Your task to perform on an android device: Open location settings Image 0: 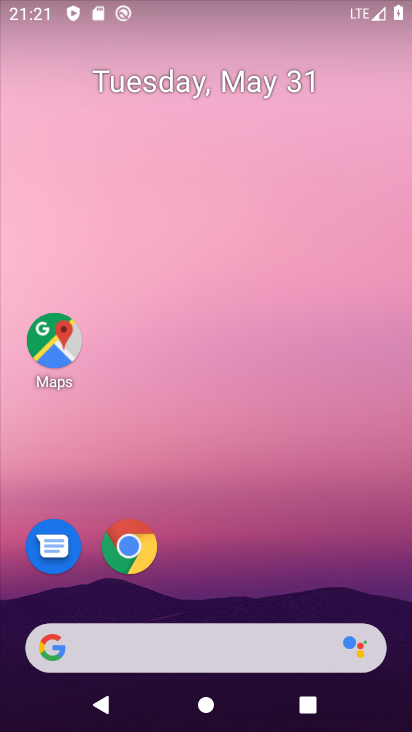
Step 0: drag from (400, 705) to (318, 165)
Your task to perform on an android device: Open location settings Image 1: 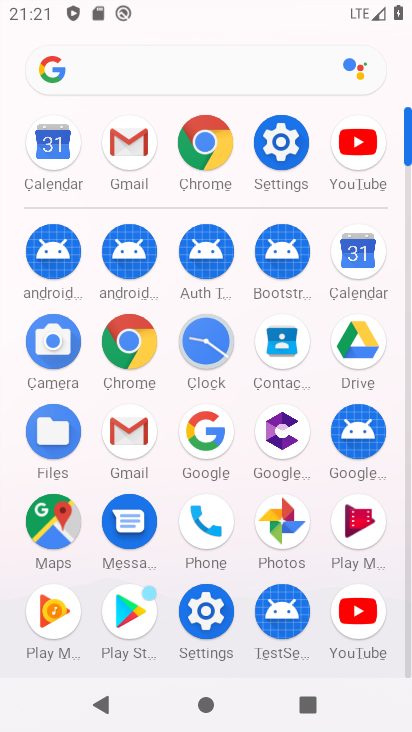
Step 1: click (206, 610)
Your task to perform on an android device: Open location settings Image 2: 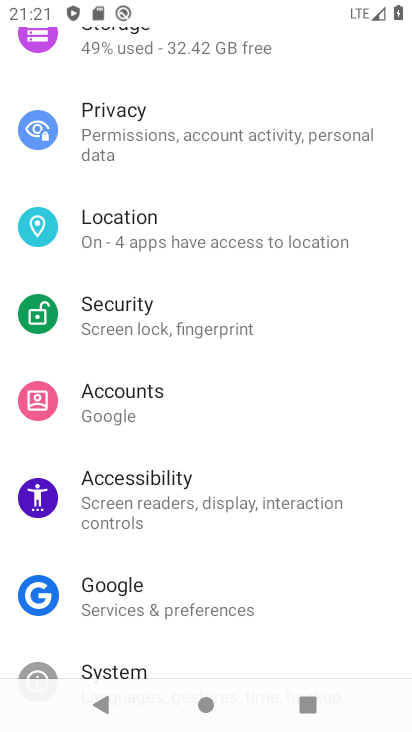
Step 2: click (119, 222)
Your task to perform on an android device: Open location settings Image 3: 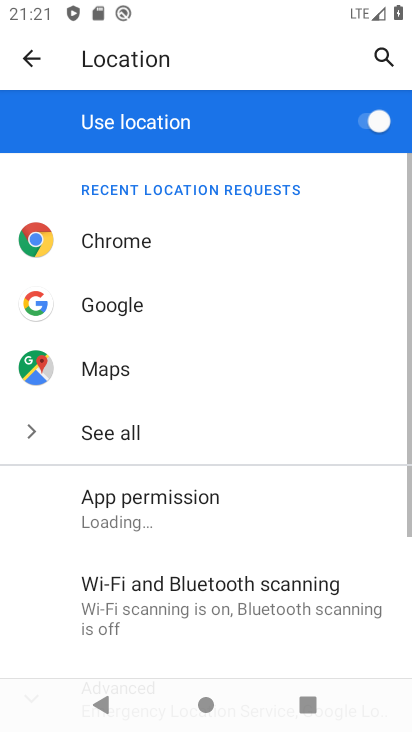
Step 3: drag from (328, 594) to (280, 172)
Your task to perform on an android device: Open location settings Image 4: 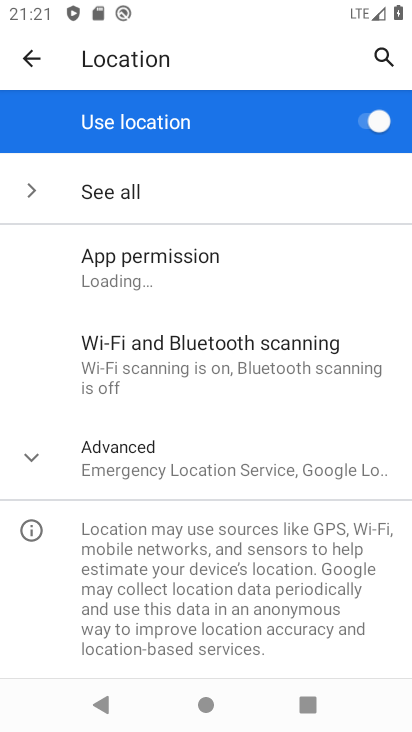
Step 4: click (37, 453)
Your task to perform on an android device: Open location settings Image 5: 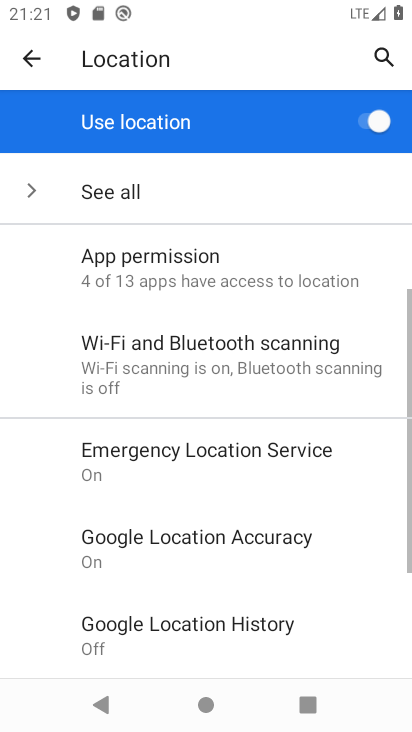
Step 5: task complete